Your task to perform on an android device: turn off smart reply in the gmail app Image 0: 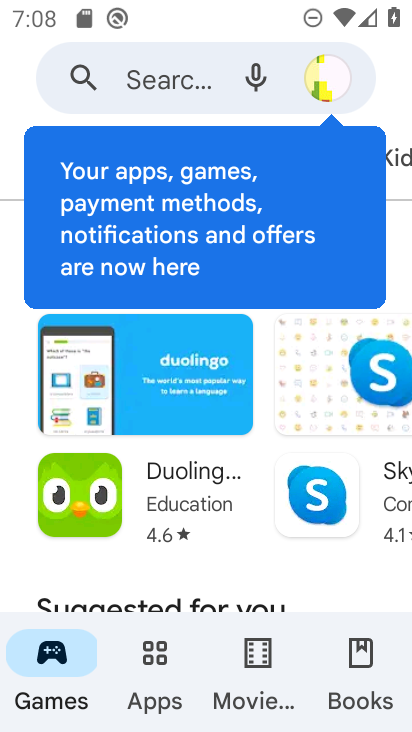
Step 0: press home button
Your task to perform on an android device: turn off smart reply in the gmail app Image 1: 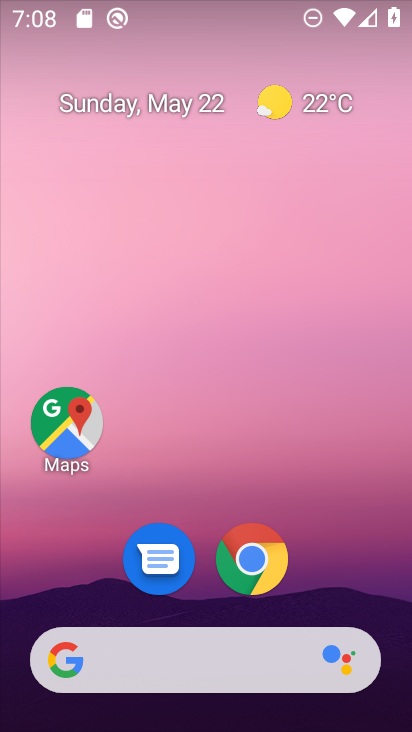
Step 1: drag from (208, 689) to (201, 180)
Your task to perform on an android device: turn off smart reply in the gmail app Image 2: 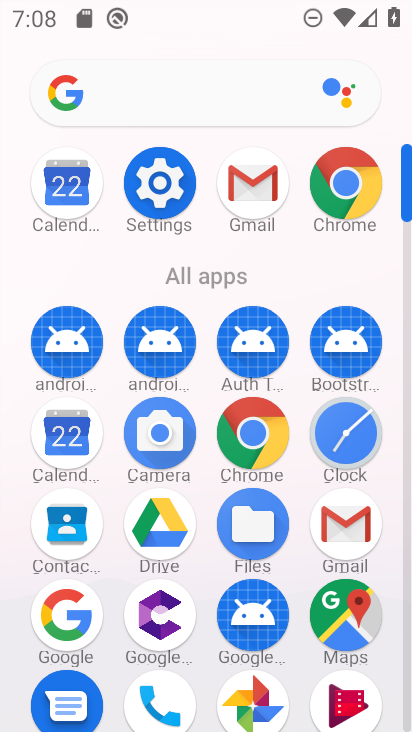
Step 2: click (243, 182)
Your task to perform on an android device: turn off smart reply in the gmail app Image 3: 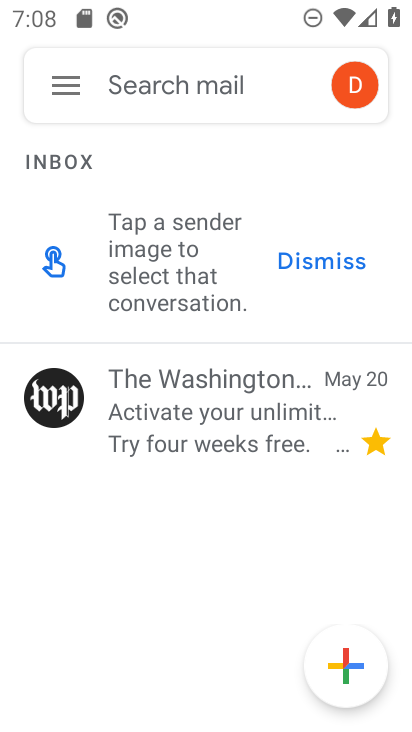
Step 3: click (268, 262)
Your task to perform on an android device: turn off smart reply in the gmail app Image 4: 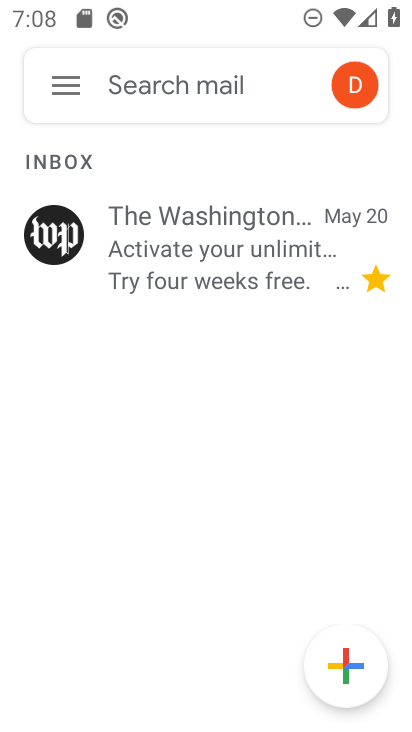
Step 4: click (81, 72)
Your task to perform on an android device: turn off smart reply in the gmail app Image 5: 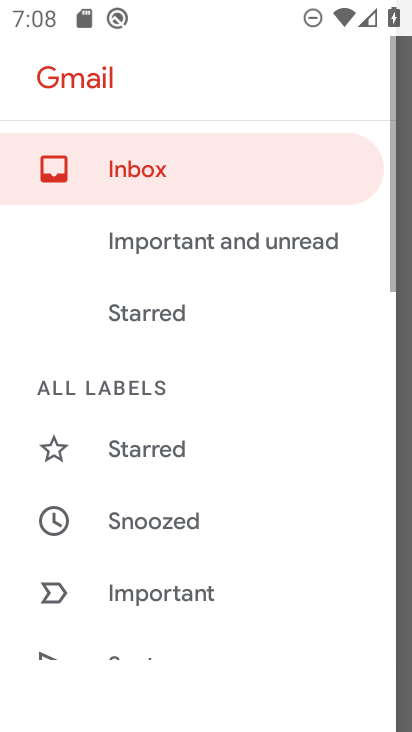
Step 5: drag from (245, 645) to (261, 138)
Your task to perform on an android device: turn off smart reply in the gmail app Image 6: 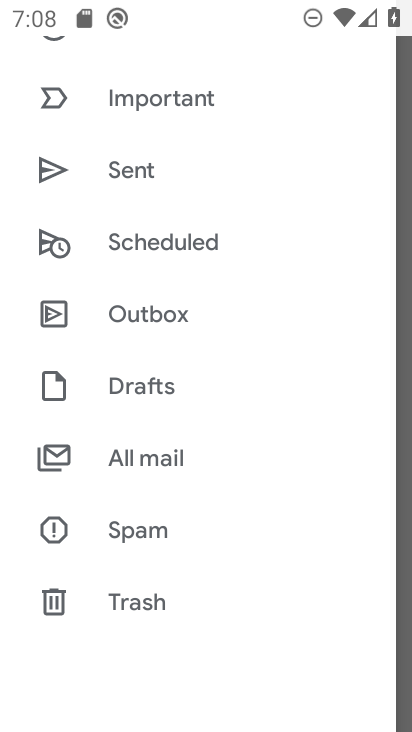
Step 6: drag from (242, 516) to (293, 141)
Your task to perform on an android device: turn off smart reply in the gmail app Image 7: 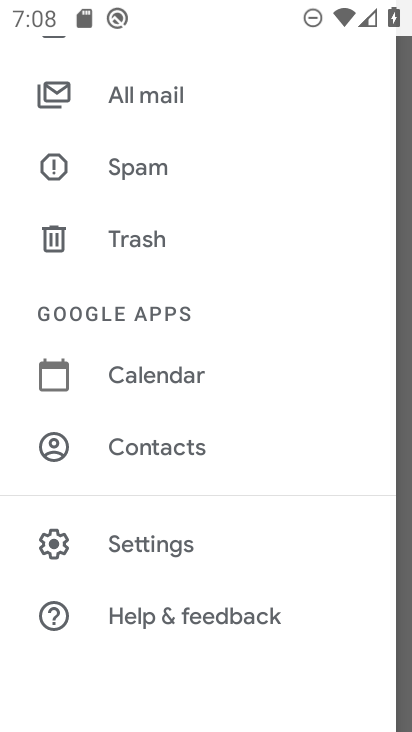
Step 7: click (188, 551)
Your task to perform on an android device: turn off smart reply in the gmail app Image 8: 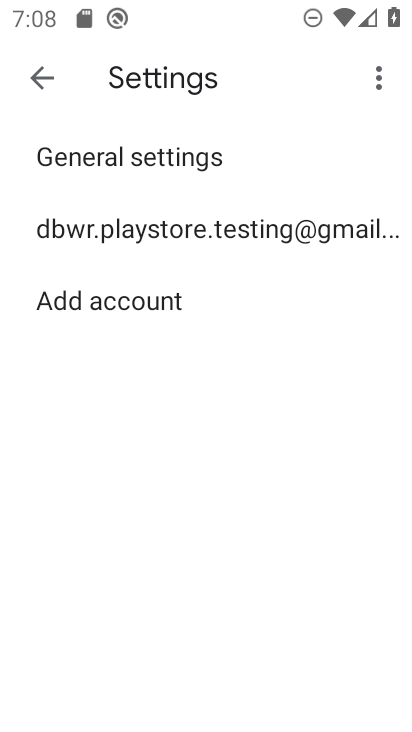
Step 8: click (169, 240)
Your task to perform on an android device: turn off smart reply in the gmail app Image 9: 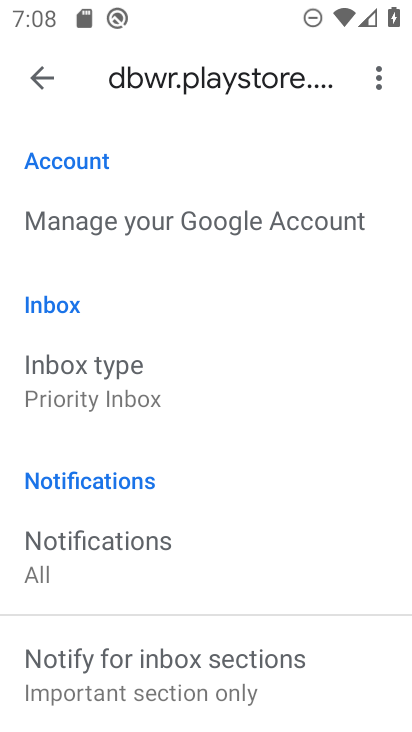
Step 9: drag from (249, 527) to (160, 153)
Your task to perform on an android device: turn off smart reply in the gmail app Image 10: 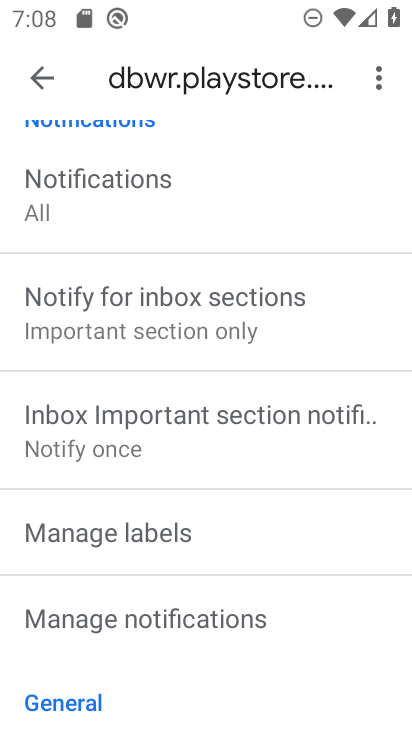
Step 10: drag from (189, 275) to (127, 149)
Your task to perform on an android device: turn off smart reply in the gmail app Image 11: 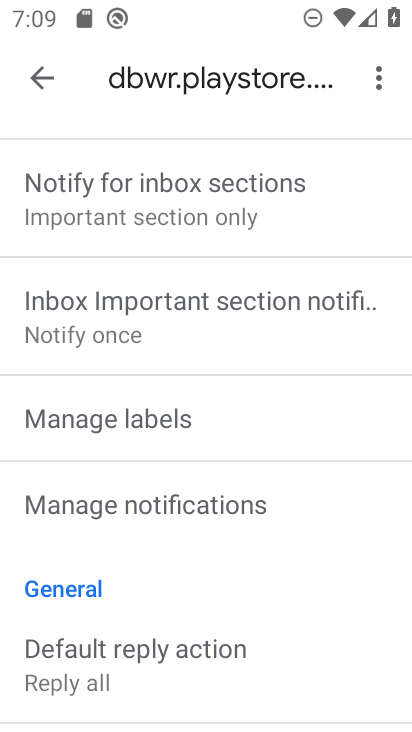
Step 11: drag from (227, 652) to (174, 310)
Your task to perform on an android device: turn off smart reply in the gmail app Image 12: 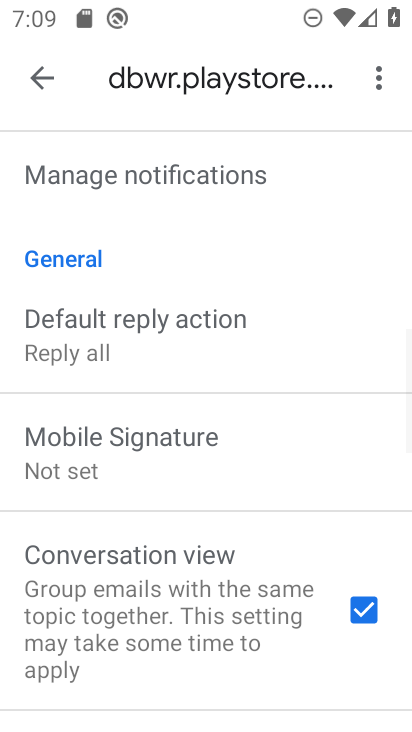
Step 12: drag from (218, 519) to (181, 301)
Your task to perform on an android device: turn off smart reply in the gmail app Image 13: 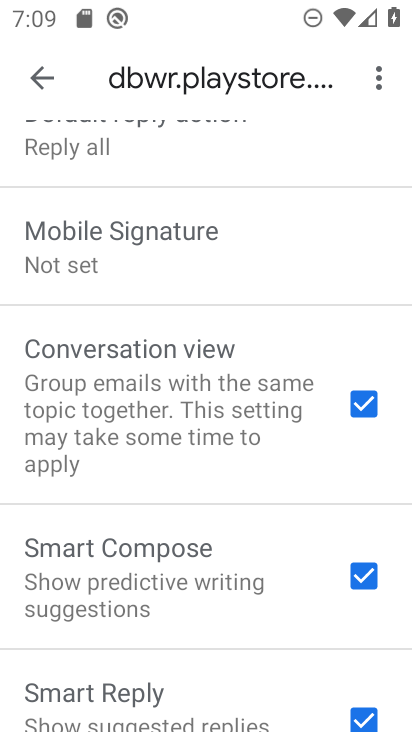
Step 13: drag from (276, 631) to (237, 472)
Your task to perform on an android device: turn off smart reply in the gmail app Image 14: 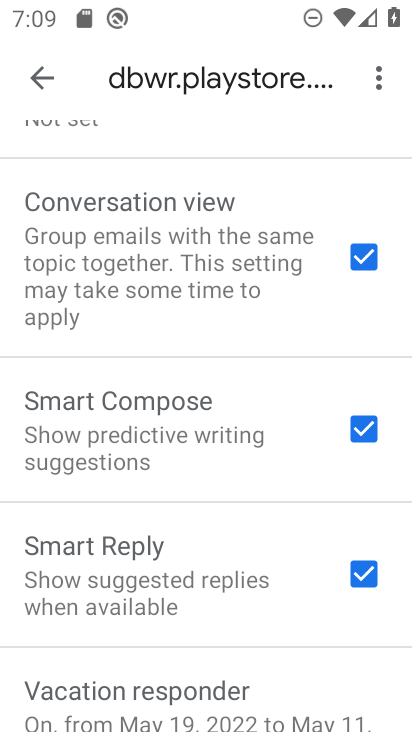
Step 14: click (359, 563)
Your task to perform on an android device: turn off smart reply in the gmail app Image 15: 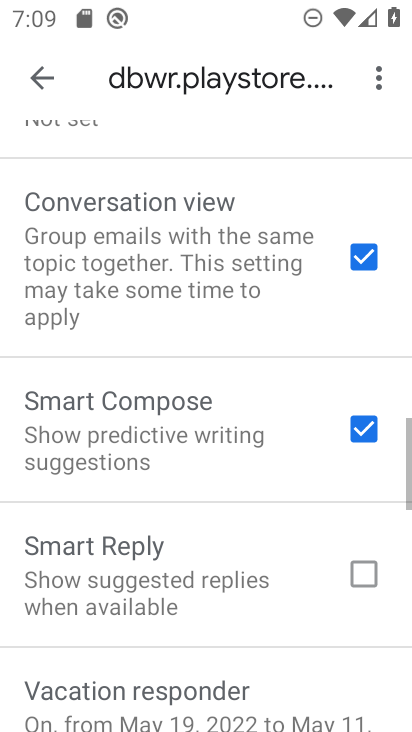
Step 15: task complete